Your task to perform on an android device: Open sound settings Image 0: 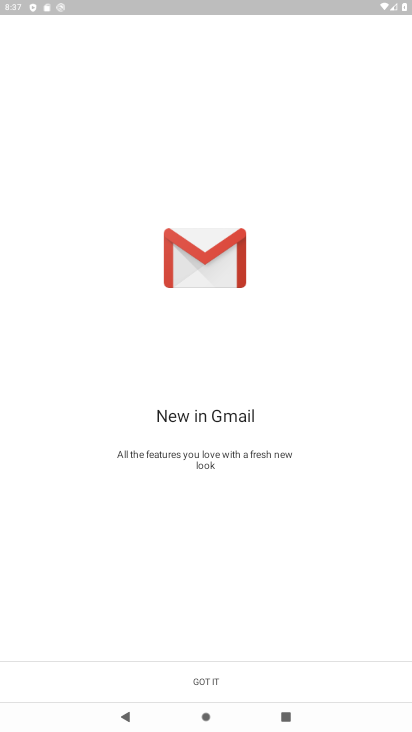
Step 0: press home button
Your task to perform on an android device: Open sound settings Image 1: 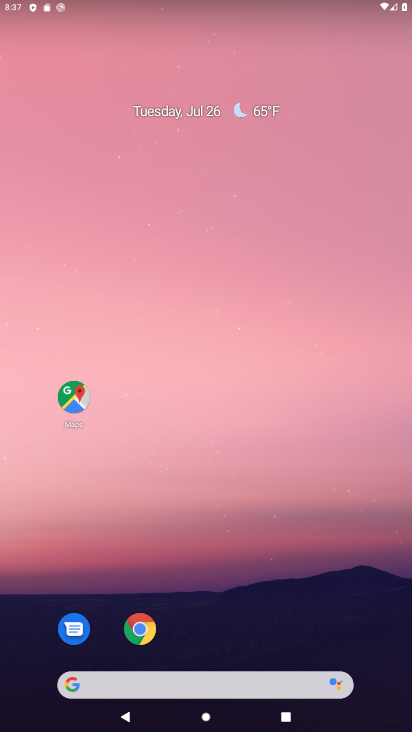
Step 1: drag from (352, 580) to (345, 38)
Your task to perform on an android device: Open sound settings Image 2: 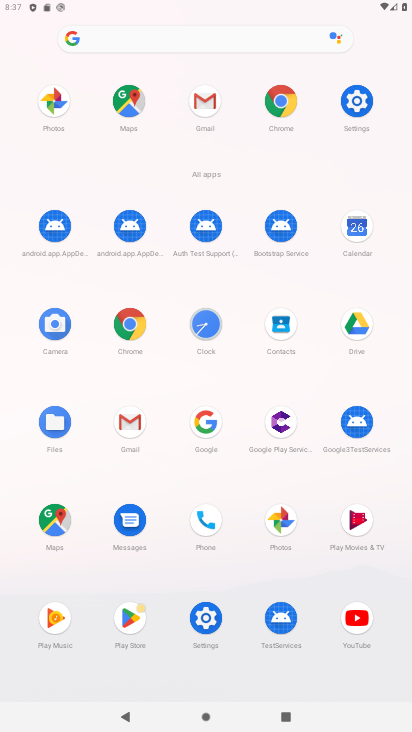
Step 2: click (354, 108)
Your task to perform on an android device: Open sound settings Image 3: 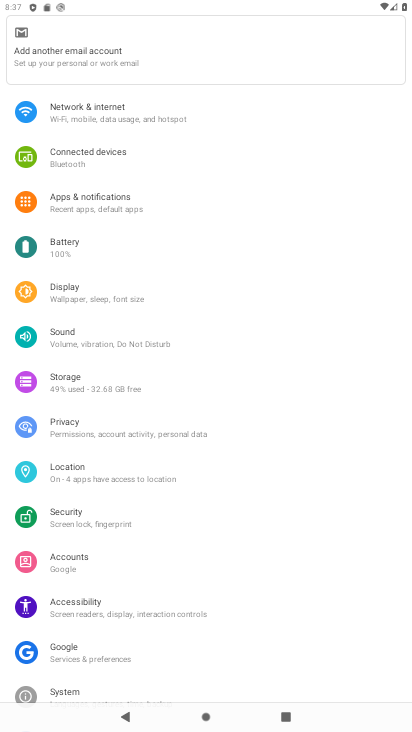
Step 3: click (62, 337)
Your task to perform on an android device: Open sound settings Image 4: 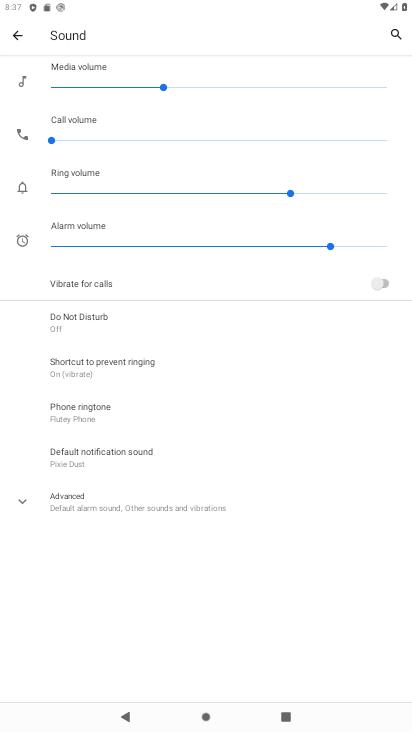
Step 4: task complete